Your task to perform on an android device: Add "asus zenbook" to the cart on target.com Image 0: 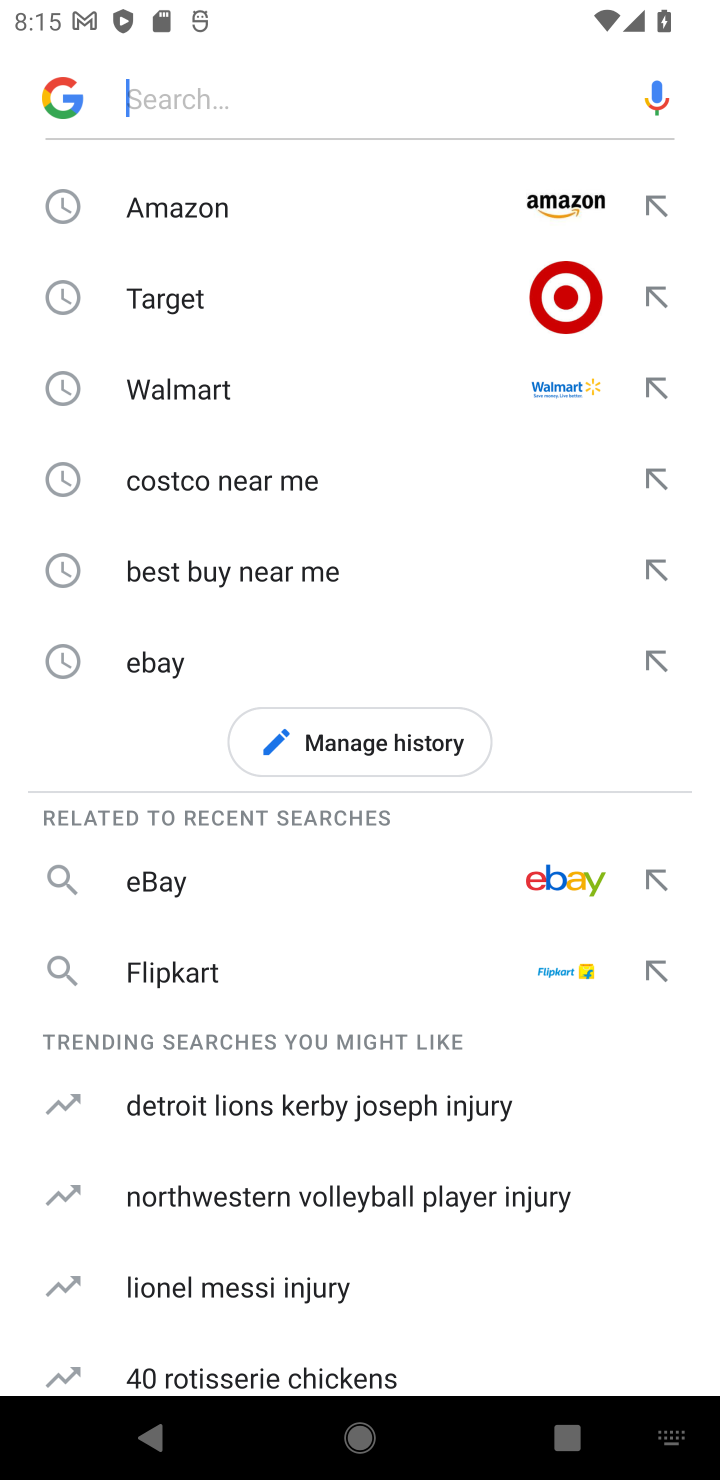
Step 0: task complete